Your task to perform on an android device: turn pop-ups on in chrome Image 0: 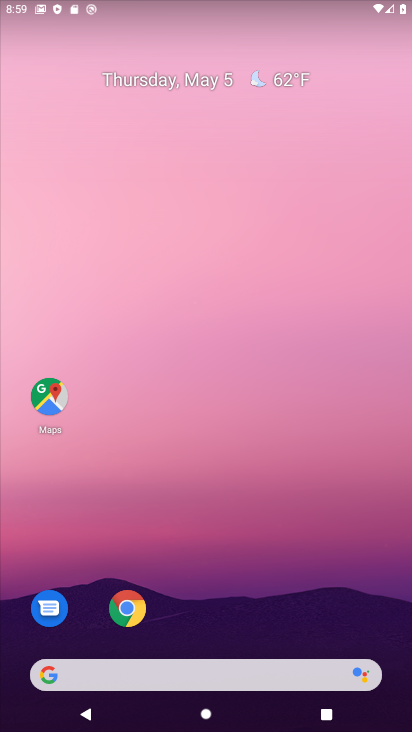
Step 0: drag from (256, 497) to (191, 23)
Your task to perform on an android device: turn pop-ups on in chrome Image 1: 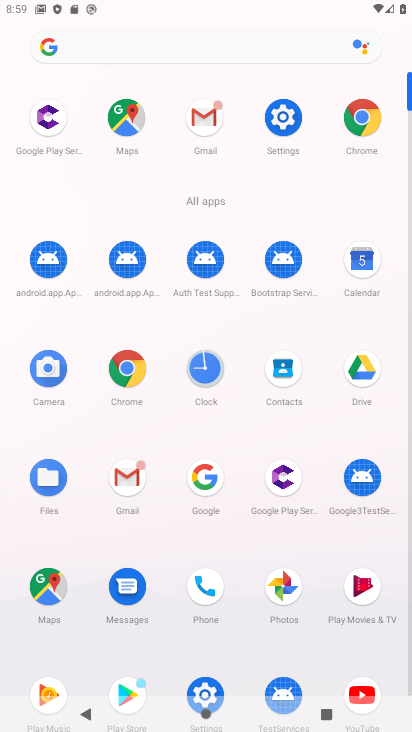
Step 1: drag from (10, 498) to (19, 258)
Your task to perform on an android device: turn pop-ups on in chrome Image 2: 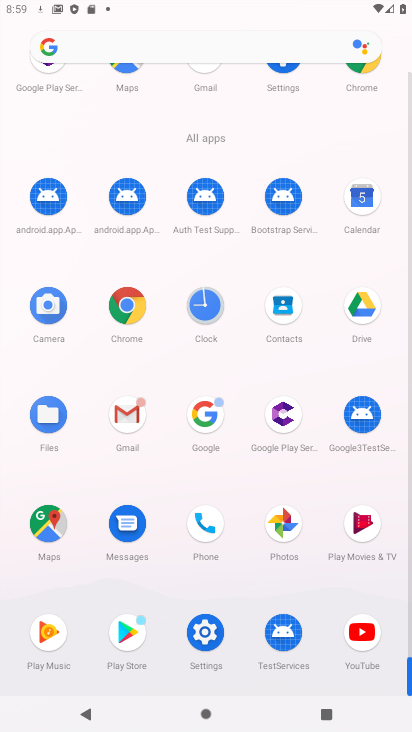
Step 2: click (123, 301)
Your task to perform on an android device: turn pop-ups on in chrome Image 3: 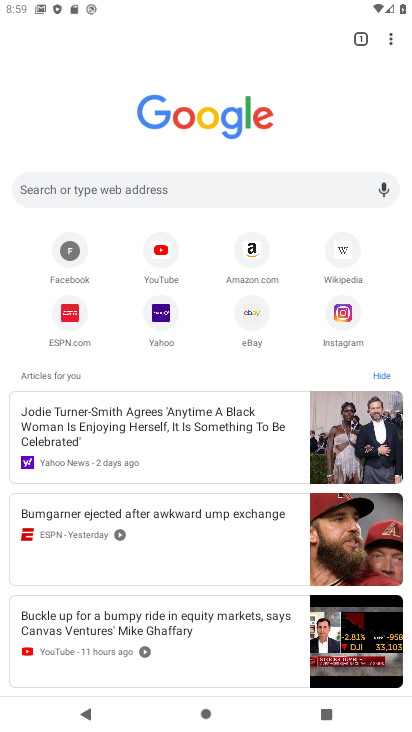
Step 3: drag from (390, 38) to (251, 321)
Your task to perform on an android device: turn pop-ups on in chrome Image 4: 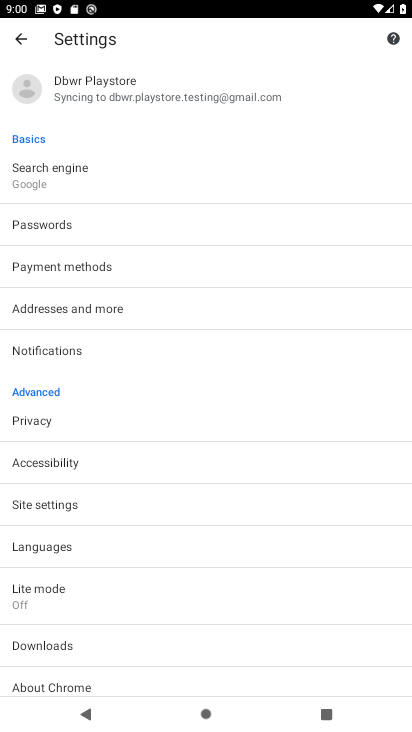
Step 4: click (85, 513)
Your task to perform on an android device: turn pop-ups on in chrome Image 5: 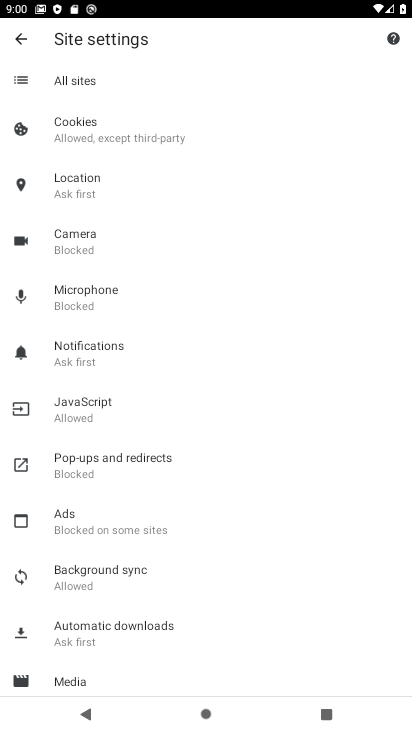
Step 5: click (127, 462)
Your task to perform on an android device: turn pop-ups on in chrome Image 6: 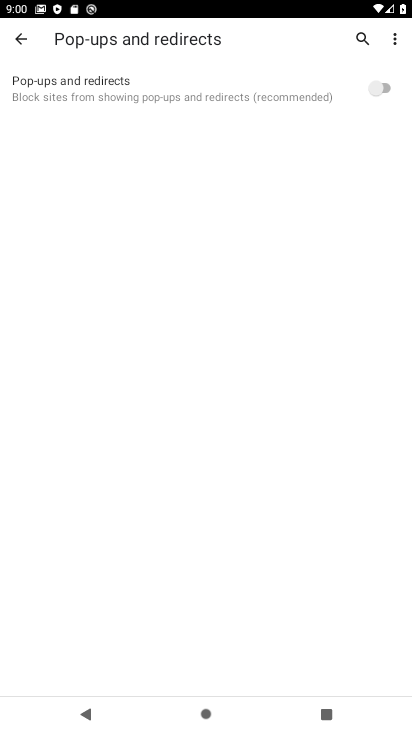
Step 6: click (385, 89)
Your task to perform on an android device: turn pop-ups on in chrome Image 7: 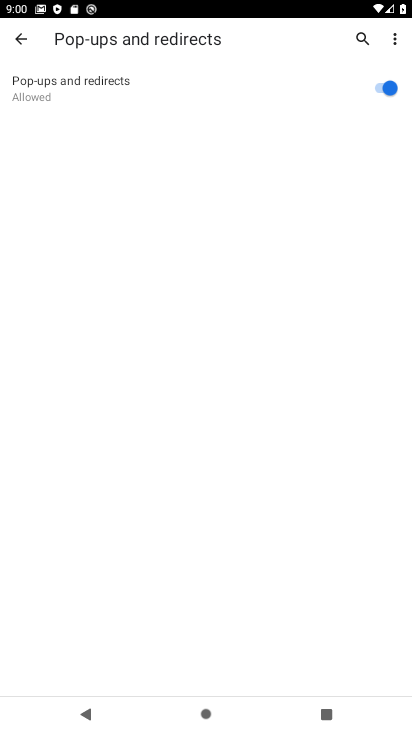
Step 7: task complete